Your task to perform on an android device: Search for "beats solo 3" on amazon, select the first entry, and add it to the cart. Image 0: 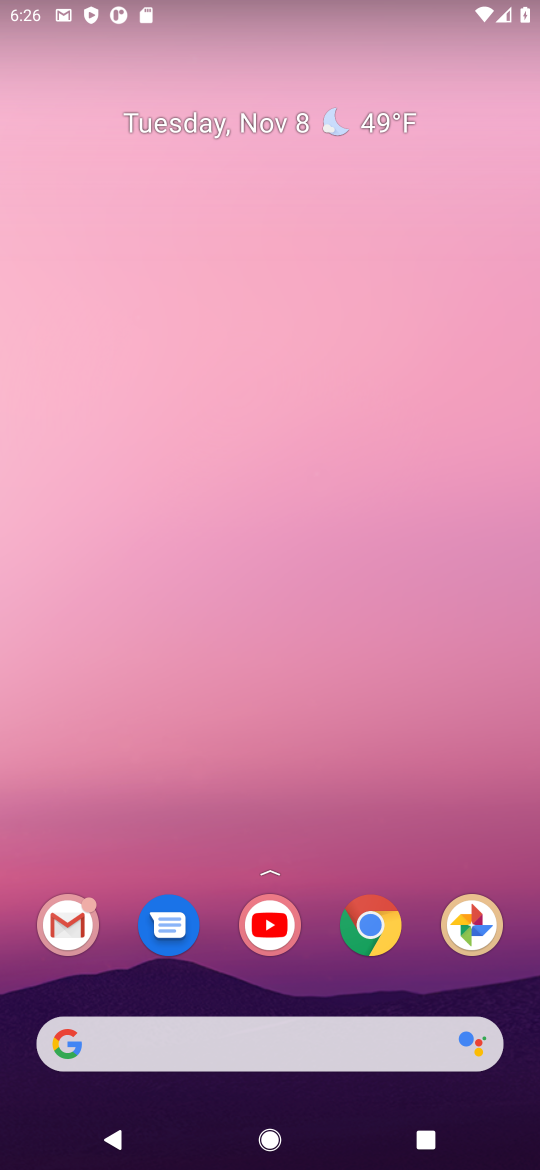
Step 0: click (368, 929)
Your task to perform on an android device: Search for "beats solo 3" on amazon, select the first entry, and add it to the cart. Image 1: 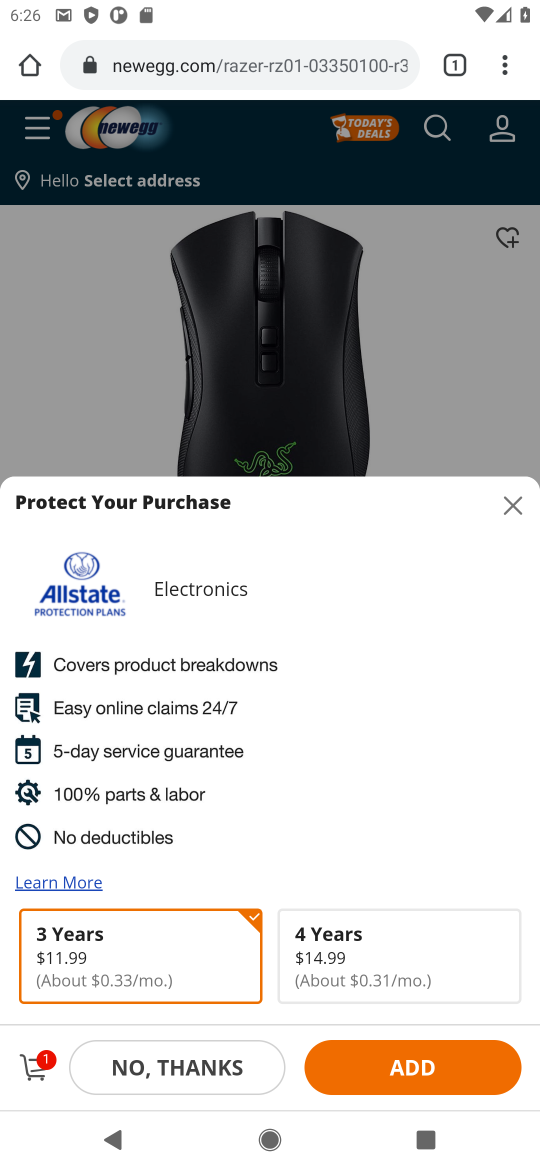
Step 1: click (340, 57)
Your task to perform on an android device: Search for "beats solo 3" on amazon, select the first entry, and add it to the cart. Image 2: 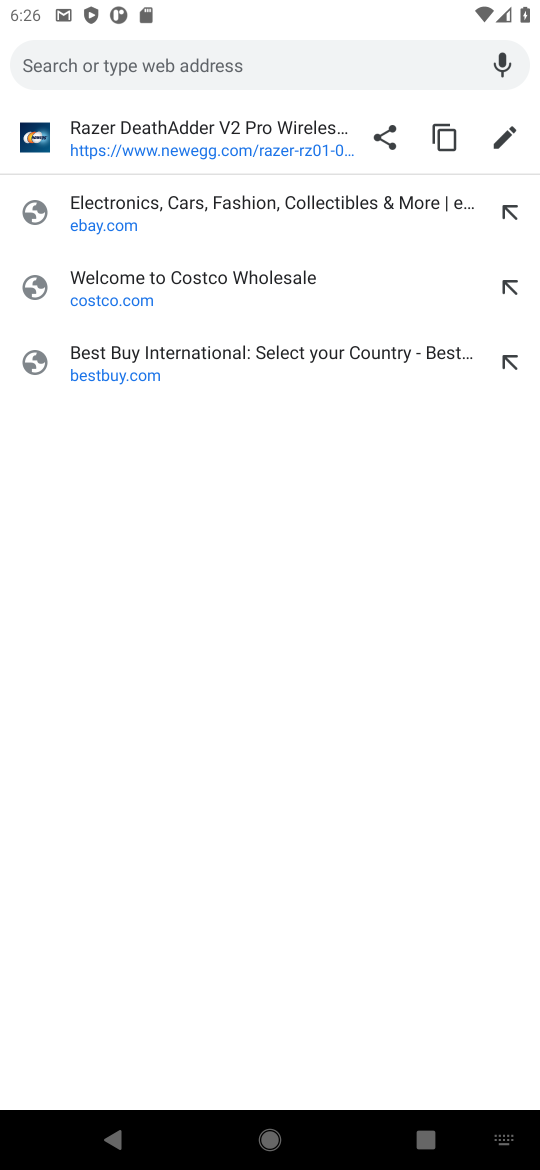
Step 2: type "amazon"
Your task to perform on an android device: Search for "beats solo 3" on amazon, select the first entry, and add it to the cart. Image 3: 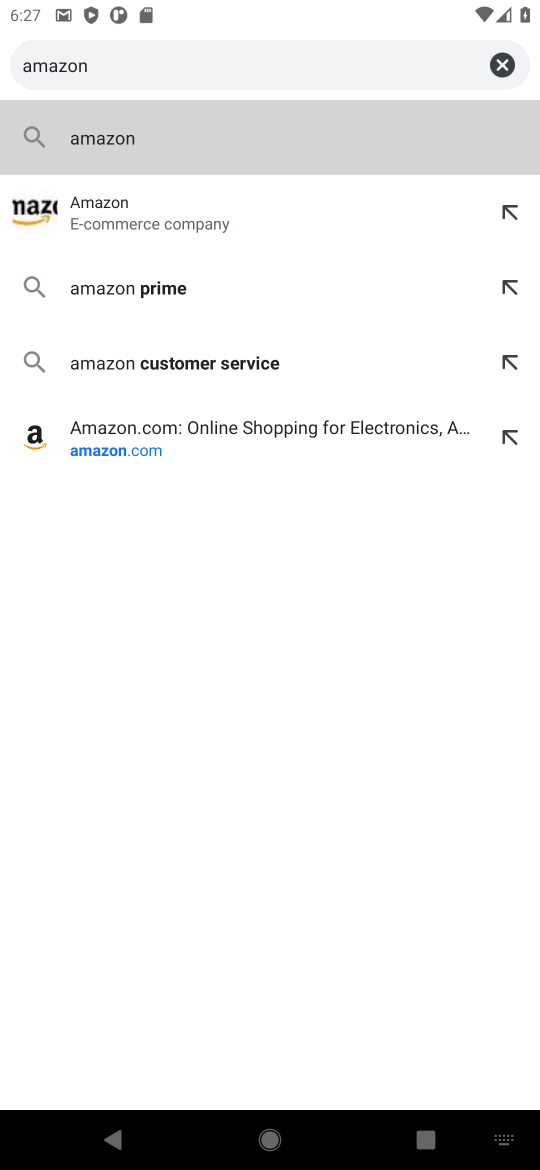
Step 3: click (161, 147)
Your task to perform on an android device: Search for "beats solo 3" on amazon, select the first entry, and add it to the cart. Image 4: 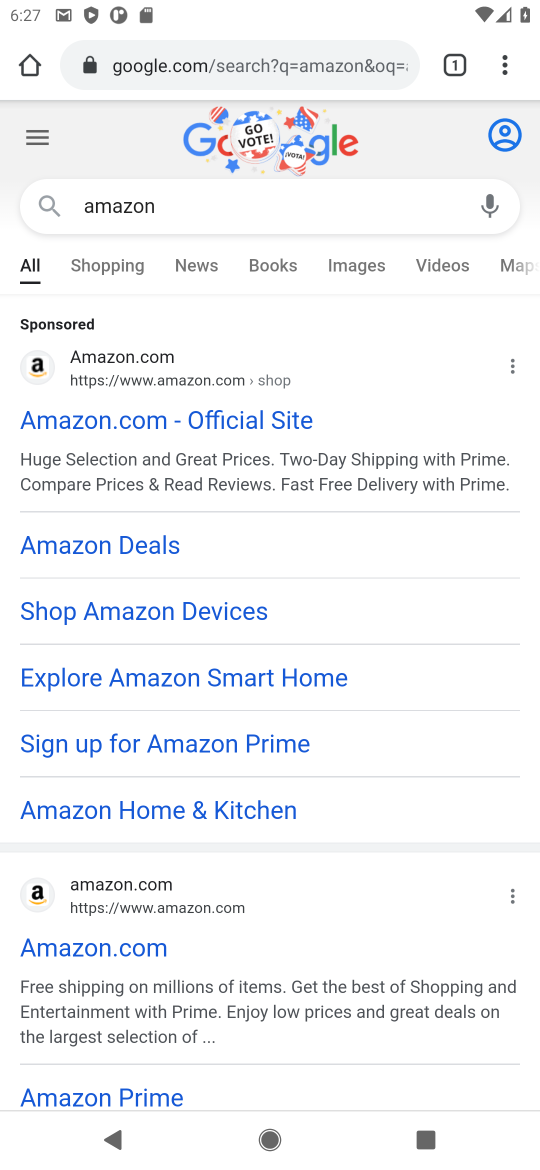
Step 4: click (70, 949)
Your task to perform on an android device: Search for "beats solo 3" on amazon, select the first entry, and add it to the cart. Image 5: 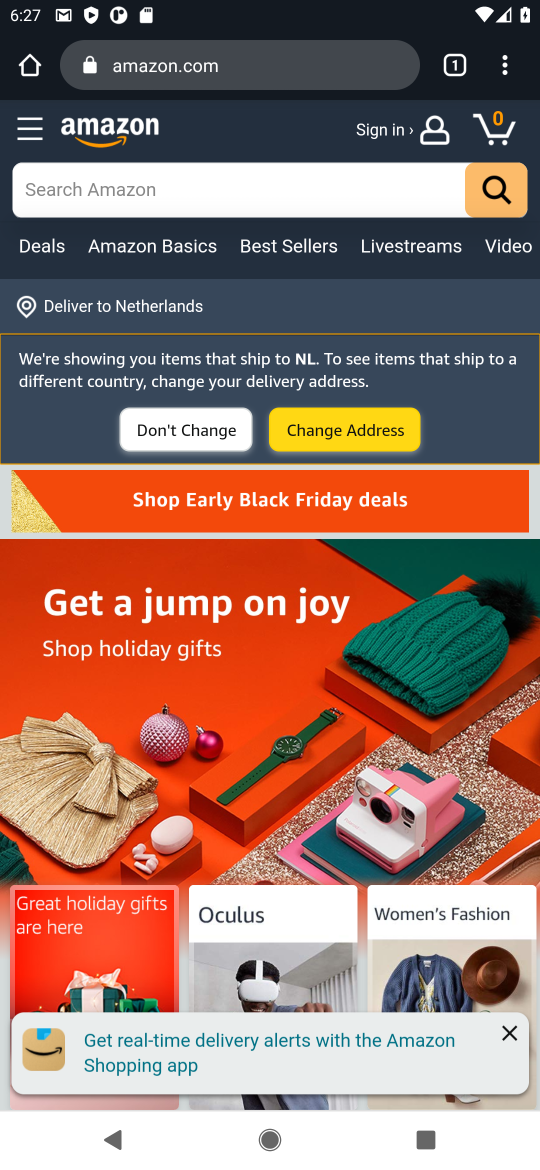
Step 5: click (235, 194)
Your task to perform on an android device: Search for "beats solo 3" on amazon, select the first entry, and add it to the cart. Image 6: 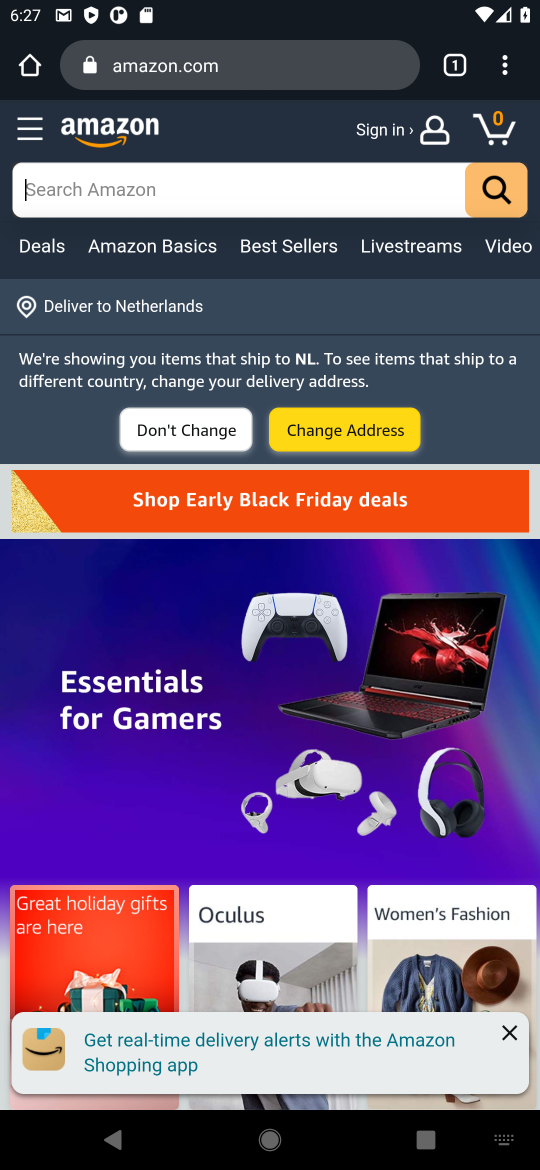
Step 6: type "beats solo 3"
Your task to perform on an android device: Search for "beats solo 3" on amazon, select the first entry, and add it to the cart. Image 7: 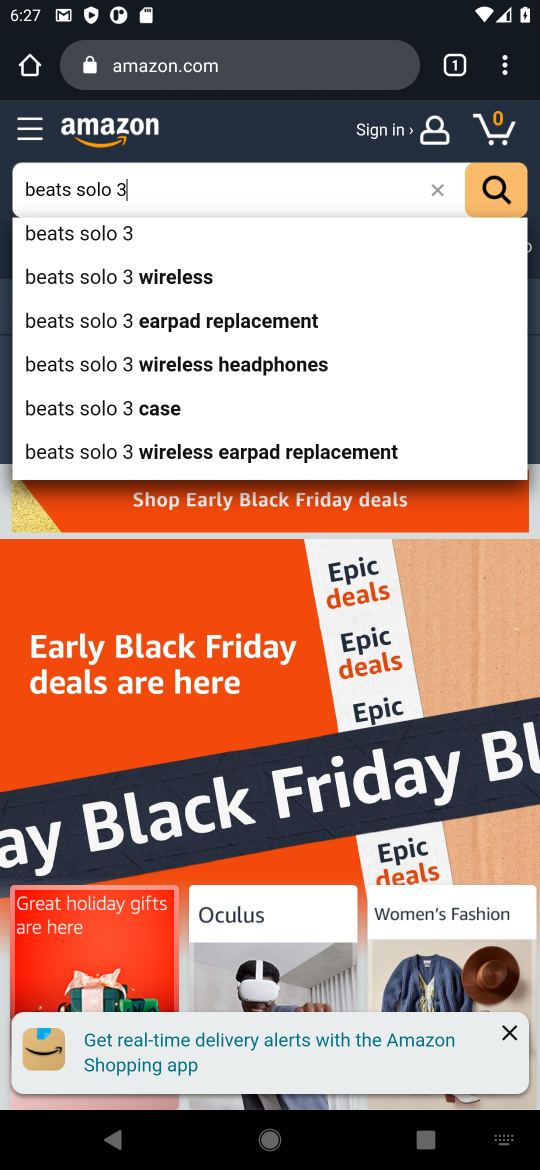
Step 7: click (108, 233)
Your task to perform on an android device: Search for "beats solo 3" on amazon, select the first entry, and add it to the cart. Image 8: 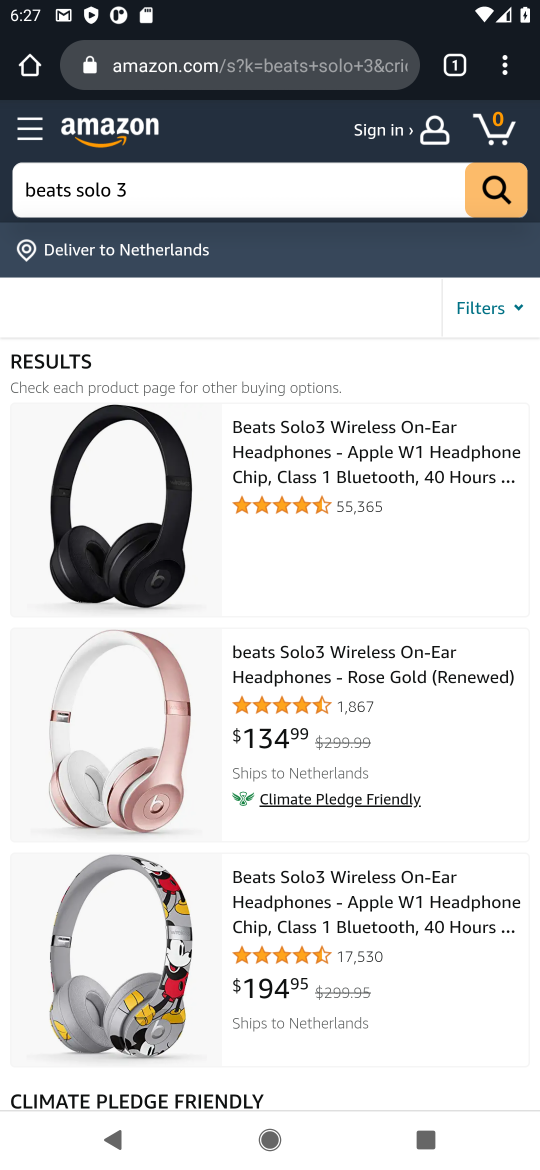
Step 8: click (271, 450)
Your task to perform on an android device: Search for "beats solo 3" on amazon, select the first entry, and add it to the cart. Image 9: 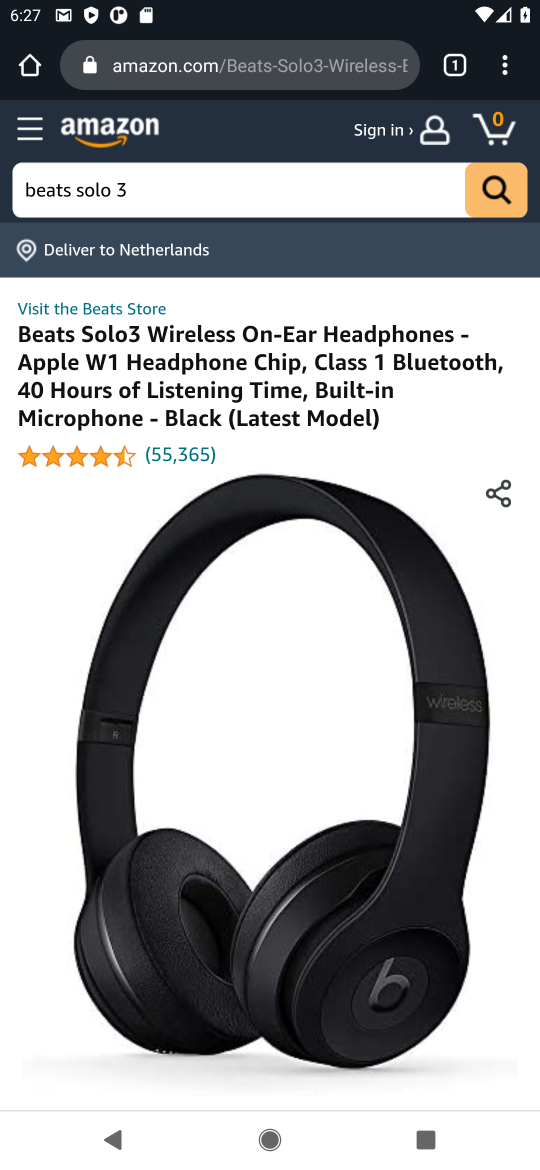
Step 9: task complete